Your task to perform on an android device: Is it going to rain today? Image 0: 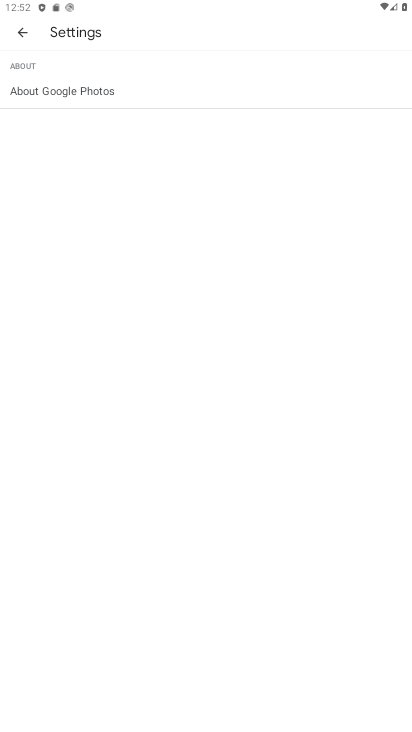
Step 0: press home button
Your task to perform on an android device: Is it going to rain today? Image 1: 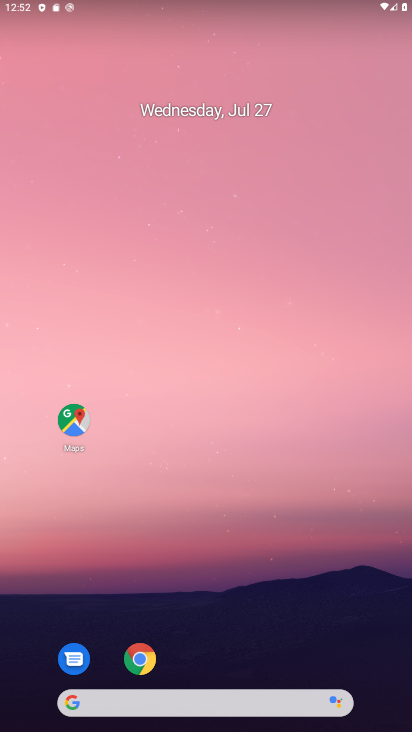
Step 1: drag from (283, 643) to (259, 1)
Your task to perform on an android device: Is it going to rain today? Image 2: 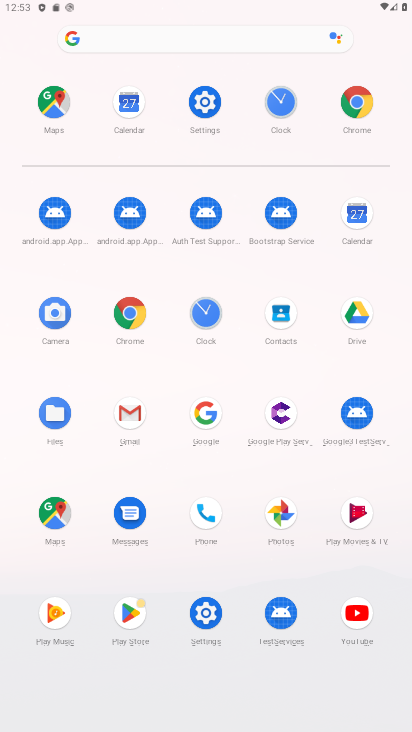
Step 2: click (365, 112)
Your task to perform on an android device: Is it going to rain today? Image 3: 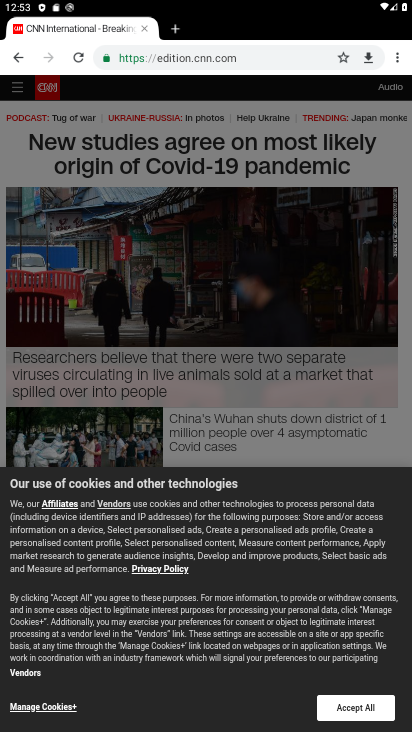
Step 3: click (285, 46)
Your task to perform on an android device: Is it going to rain today? Image 4: 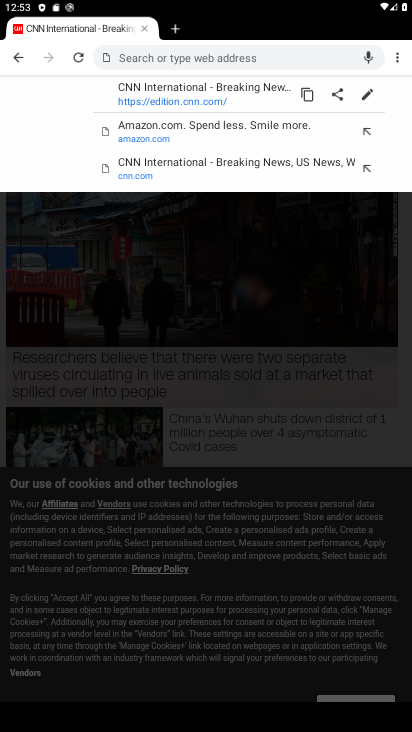
Step 4: type "weather"
Your task to perform on an android device: Is it going to rain today? Image 5: 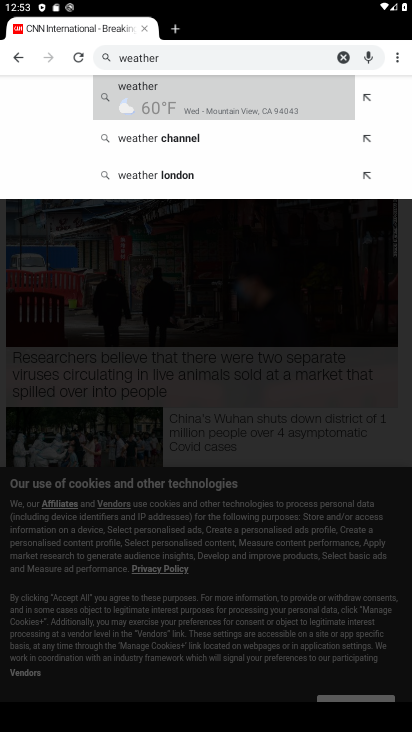
Step 5: click (217, 97)
Your task to perform on an android device: Is it going to rain today? Image 6: 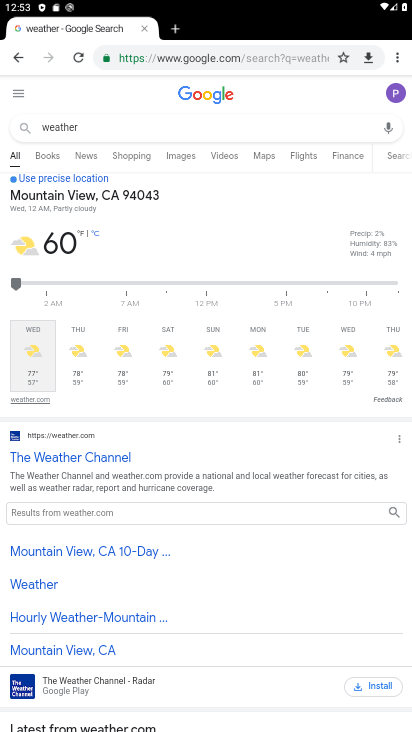
Step 6: task complete